Your task to perform on an android device: Go to Google maps Image 0: 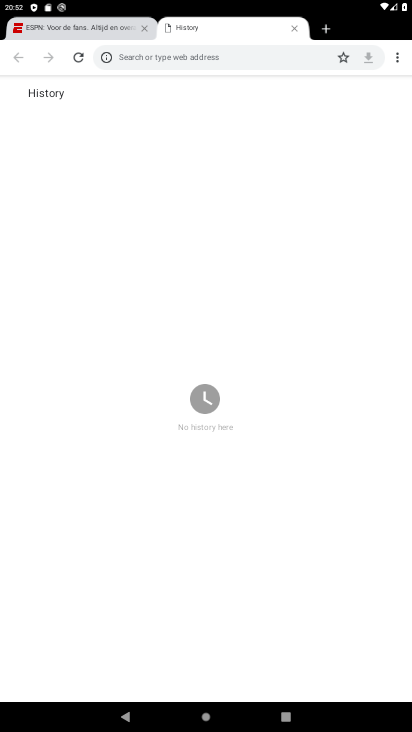
Step 0: press home button
Your task to perform on an android device: Go to Google maps Image 1: 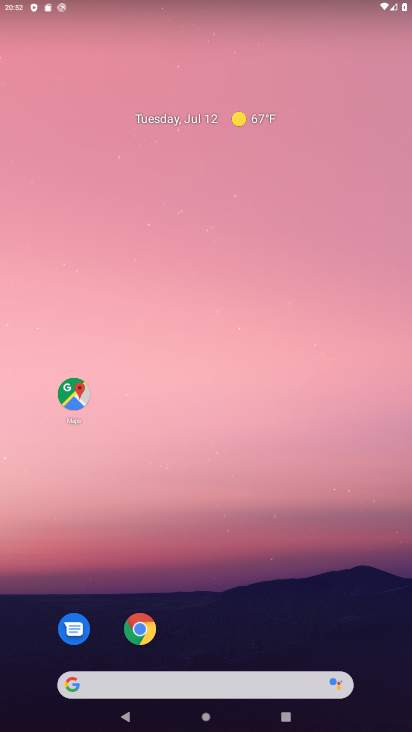
Step 1: click (71, 391)
Your task to perform on an android device: Go to Google maps Image 2: 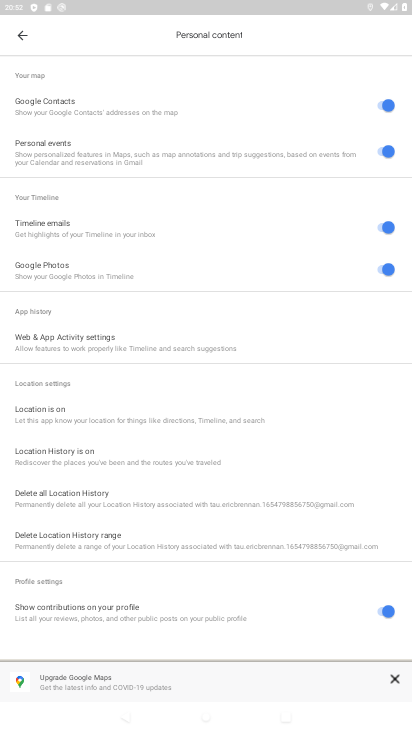
Step 2: click (19, 35)
Your task to perform on an android device: Go to Google maps Image 3: 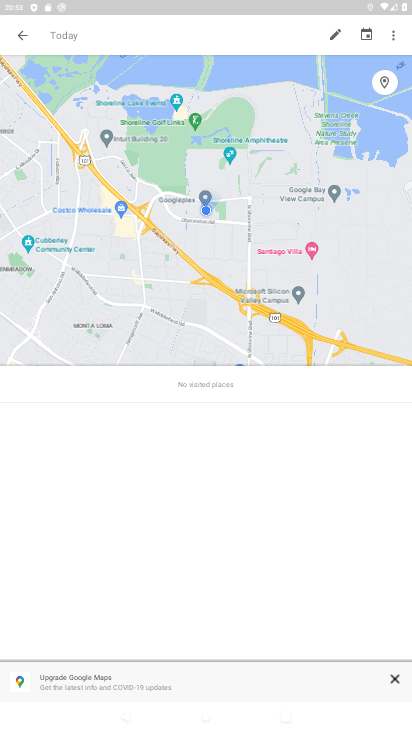
Step 3: click (26, 36)
Your task to perform on an android device: Go to Google maps Image 4: 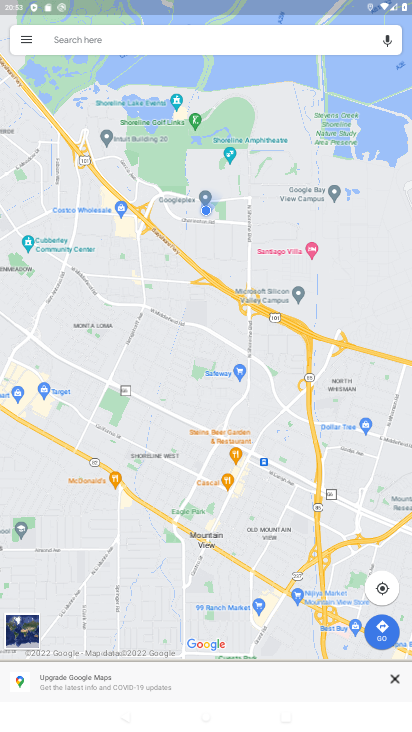
Step 4: task complete